Your task to perform on an android device: change the upload size in google photos Image 0: 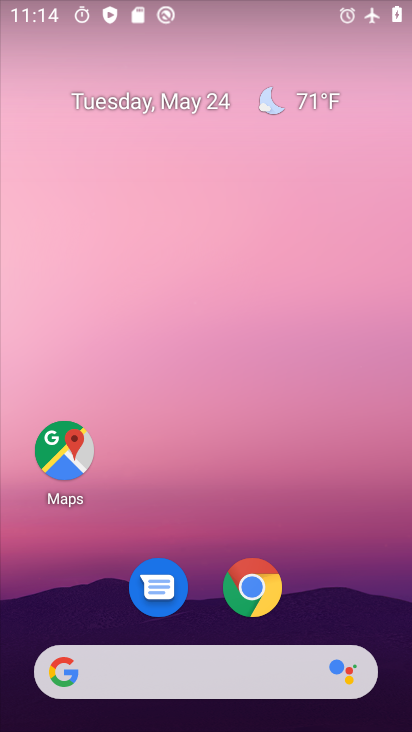
Step 0: drag from (251, 435) to (190, 200)
Your task to perform on an android device: change the upload size in google photos Image 1: 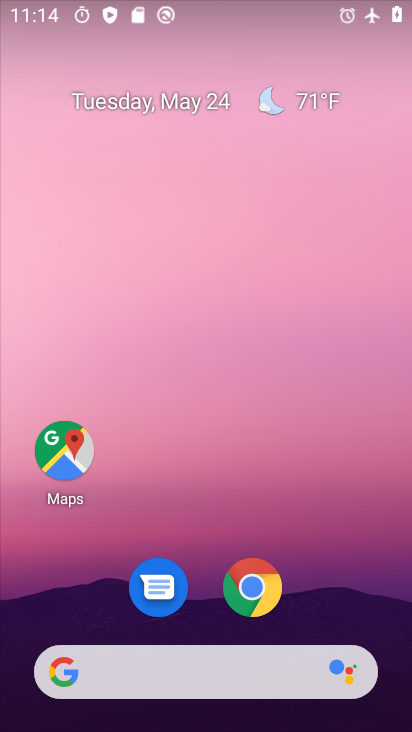
Step 1: drag from (266, 452) to (137, 205)
Your task to perform on an android device: change the upload size in google photos Image 2: 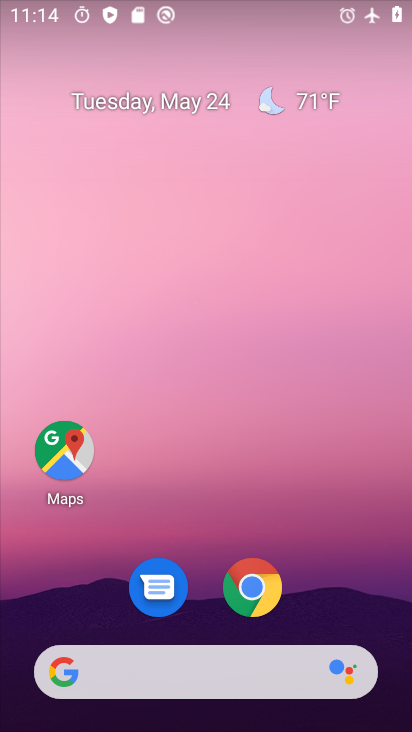
Step 2: drag from (326, 519) to (181, 16)
Your task to perform on an android device: change the upload size in google photos Image 3: 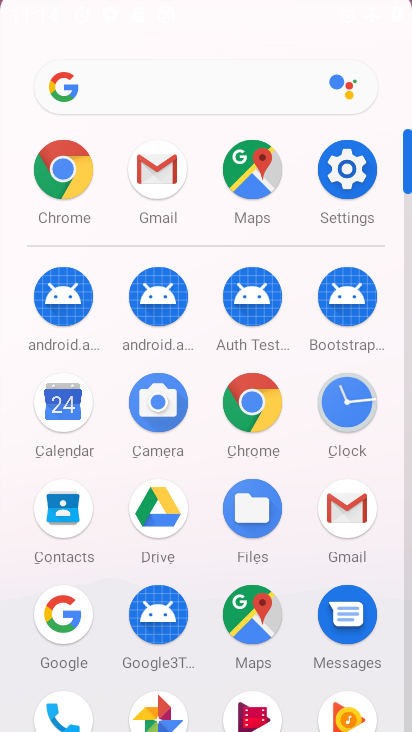
Step 3: drag from (391, 554) to (263, 72)
Your task to perform on an android device: change the upload size in google photos Image 4: 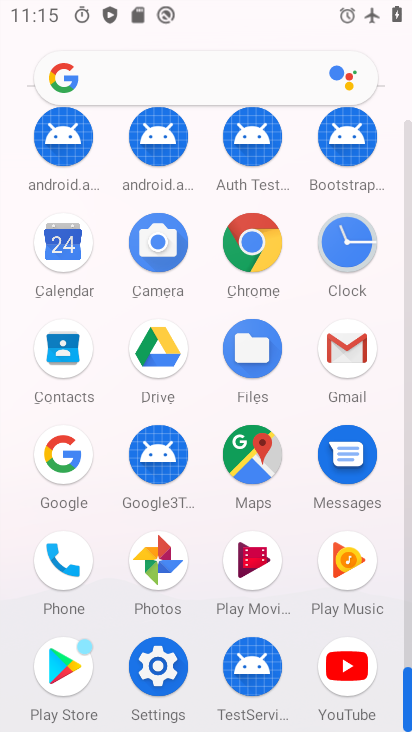
Step 4: click (147, 551)
Your task to perform on an android device: change the upload size in google photos Image 5: 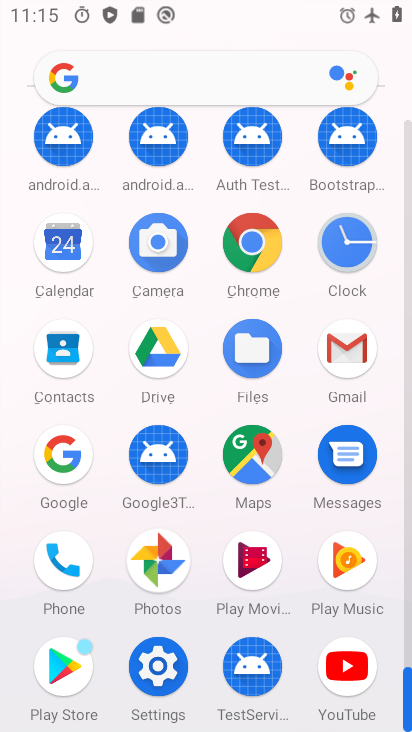
Step 5: click (153, 552)
Your task to perform on an android device: change the upload size in google photos Image 6: 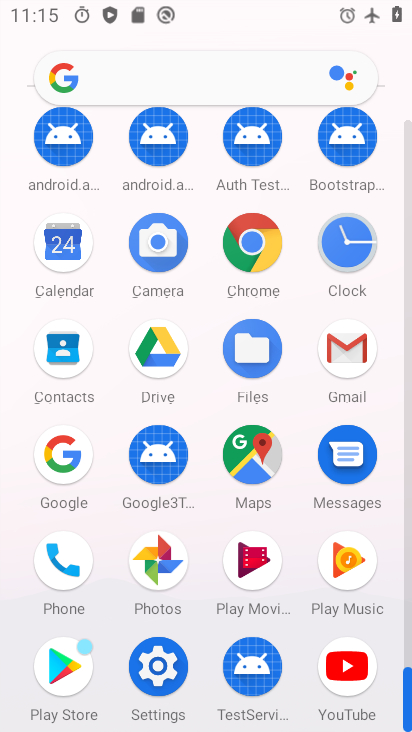
Step 6: click (153, 550)
Your task to perform on an android device: change the upload size in google photos Image 7: 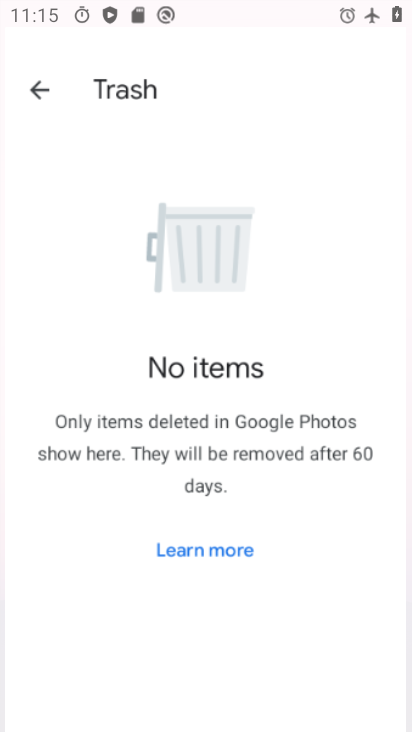
Step 7: click (154, 551)
Your task to perform on an android device: change the upload size in google photos Image 8: 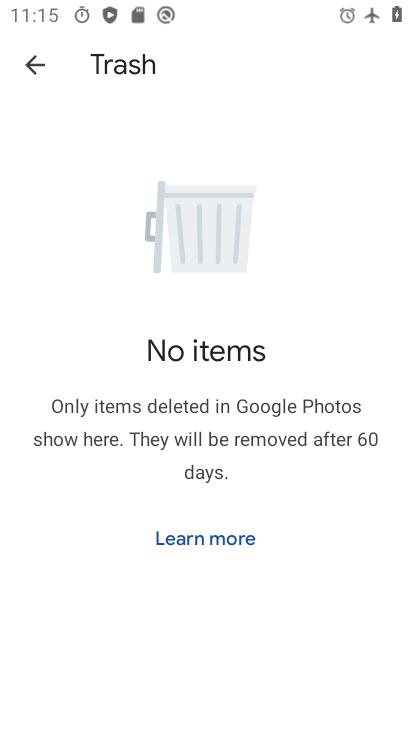
Step 8: click (154, 553)
Your task to perform on an android device: change the upload size in google photos Image 9: 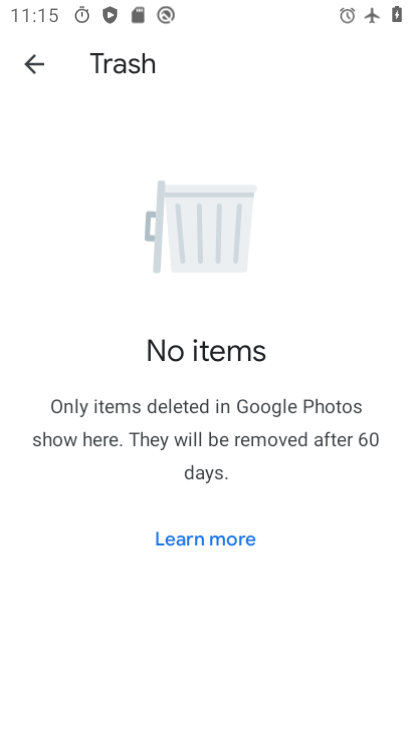
Step 9: click (28, 69)
Your task to perform on an android device: change the upload size in google photos Image 10: 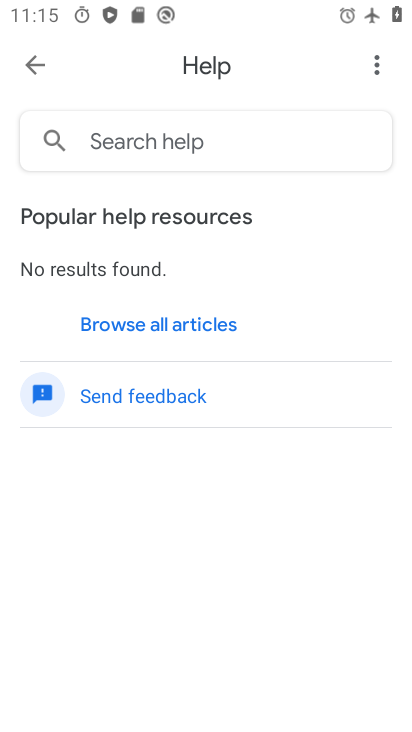
Step 10: click (35, 59)
Your task to perform on an android device: change the upload size in google photos Image 11: 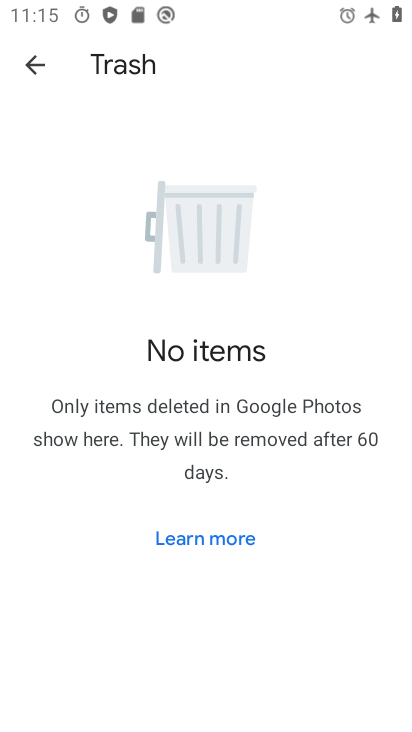
Step 11: click (37, 59)
Your task to perform on an android device: change the upload size in google photos Image 12: 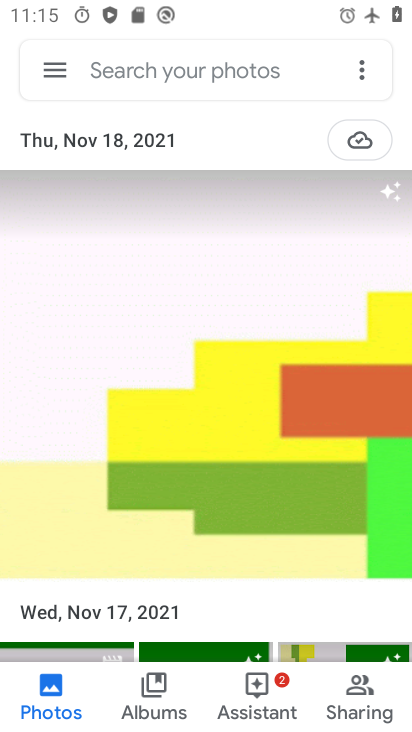
Step 12: click (68, 67)
Your task to perform on an android device: change the upload size in google photos Image 13: 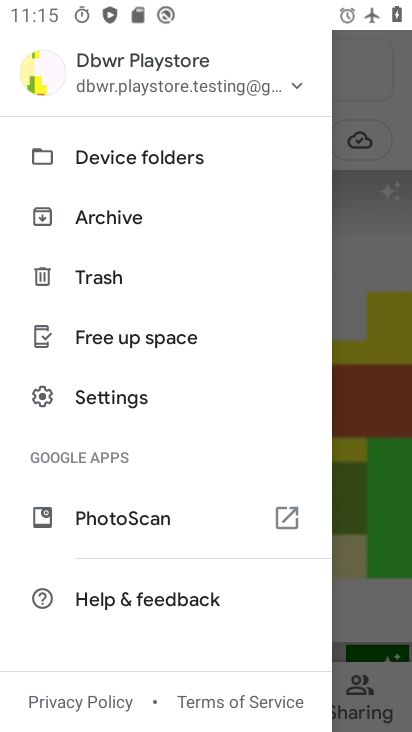
Step 13: click (112, 402)
Your task to perform on an android device: change the upload size in google photos Image 14: 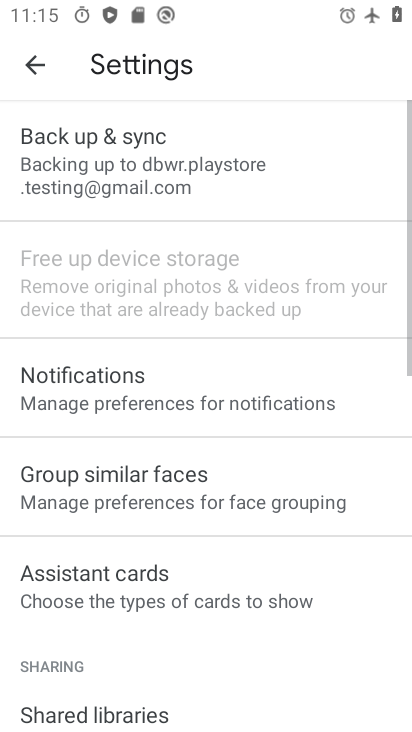
Step 14: click (99, 159)
Your task to perform on an android device: change the upload size in google photos Image 15: 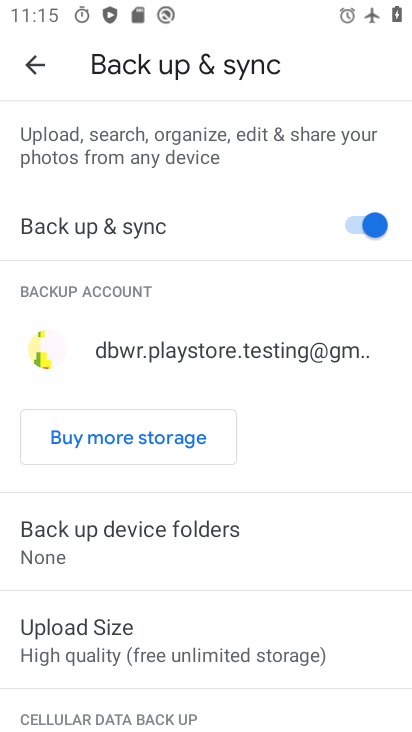
Step 15: click (97, 144)
Your task to perform on an android device: change the upload size in google photos Image 16: 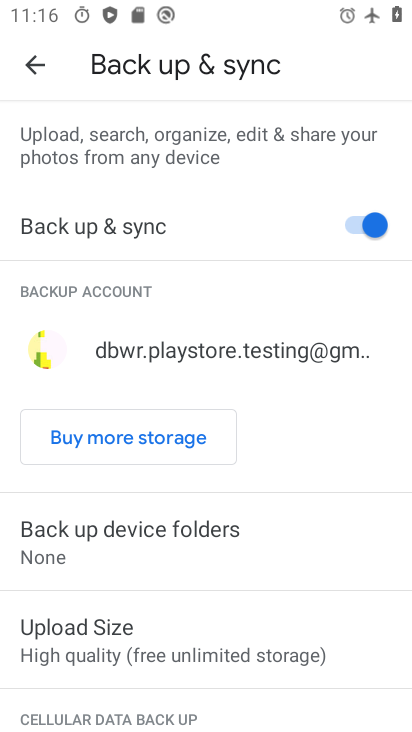
Step 16: click (183, 169)
Your task to perform on an android device: change the upload size in google photos Image 17: 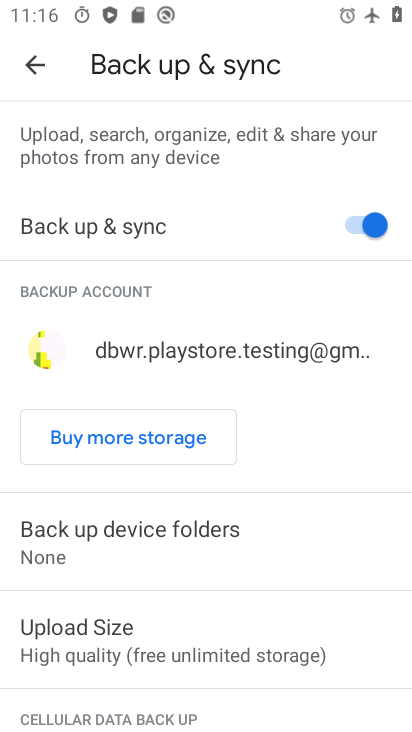
Step 17: drag from (215, 418) to (222, 158)
Your task to perform on an android device: change the upload size in google photos Image 18: 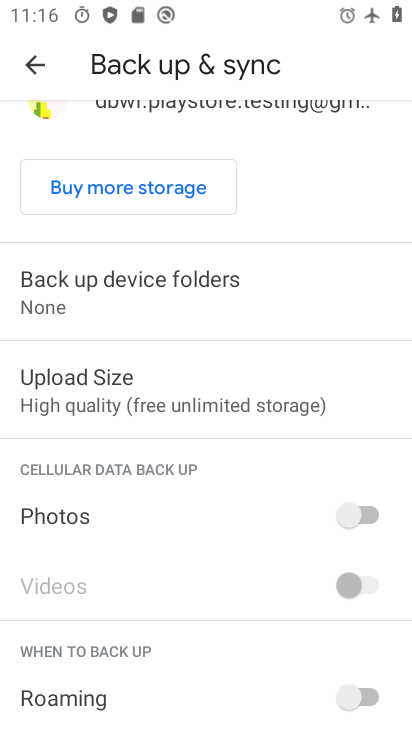
Step 18: drag from (132, 223) to (162, 486)
Your task to perform on an android device: change the upload size in google photos Image 19: 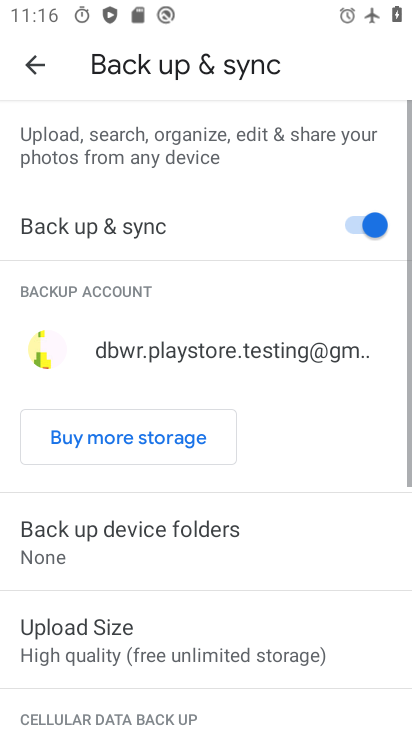
Step 19: drag from (134, 270) to (185, 571)
Your task to perform on an android device: change the upload size in google photos Image 20: 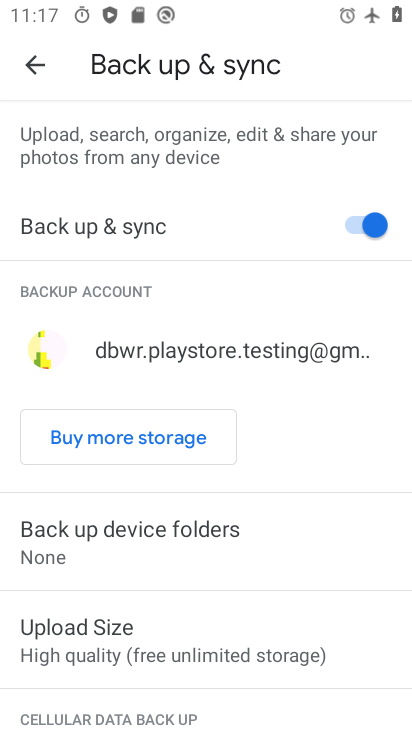
Step 20: click (91, 157)
Your task to perform on an android device: change the upload size in google photos Image 21: 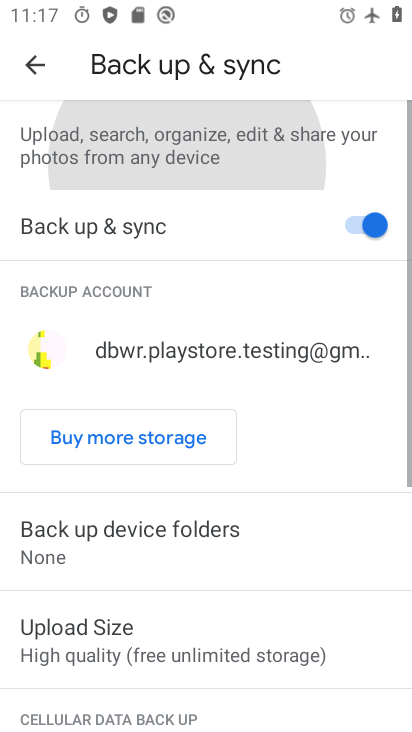
Step 21: click (91, 155)
Your task to perform on an android device: change the upload size in google photos Image 22: 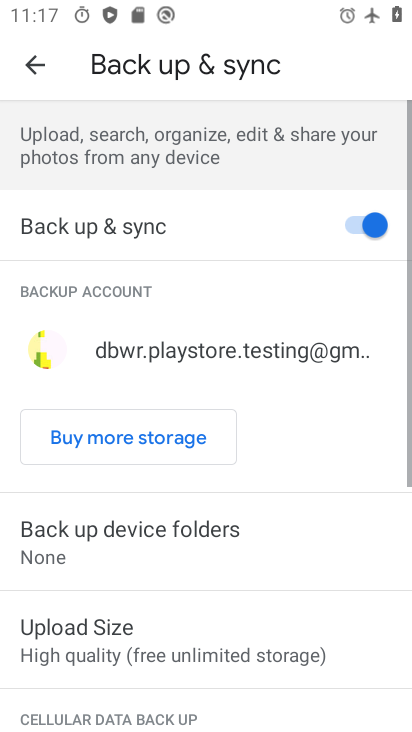
Step 22: click (92, 153)
Your task to perform on an android device: change the upload size in google photos Image 23: 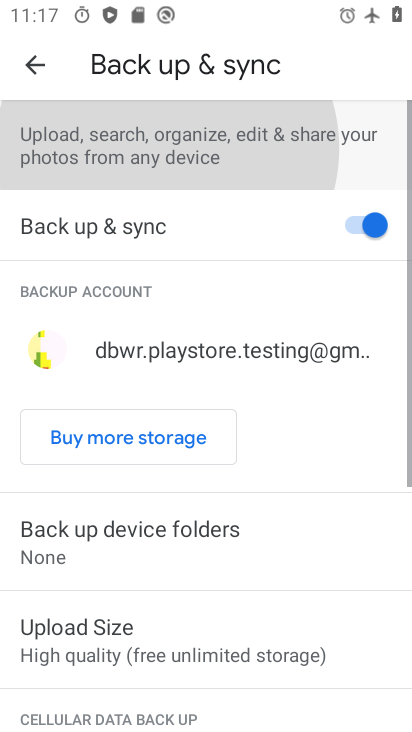
Step 23: click (93, 152)
Your task to perform on an android device: change the upload size in google photos Image 24: 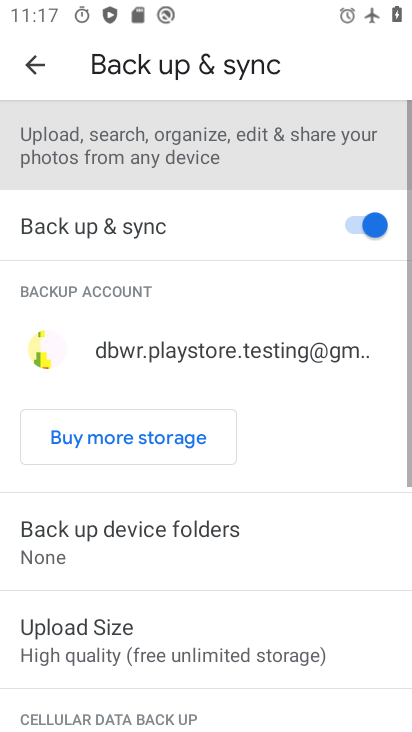
Step 24: click (95, 150)
Your task to perform on an android device: change the upload size in google photos Image 25: 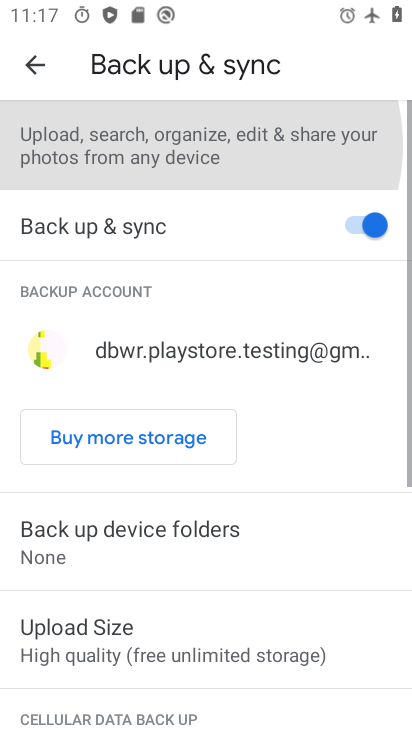
Step 25: click (97, 151)
Your task to perform on an android device: change the upload size in google photos Image 26: 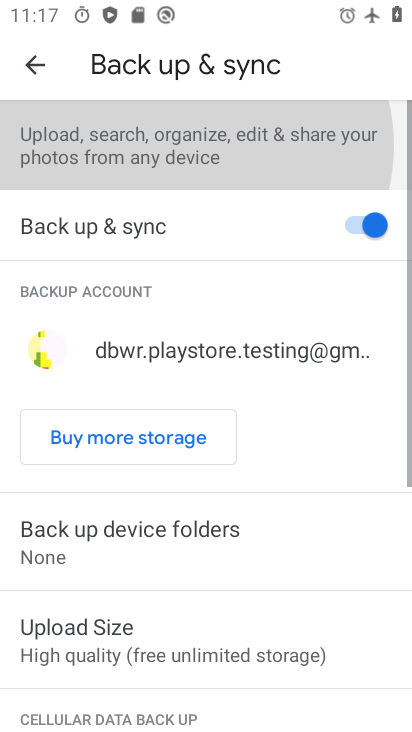
Step 26: click (97, 151)
Your task to perform on an android device: change the upload size in google photos Image 27: 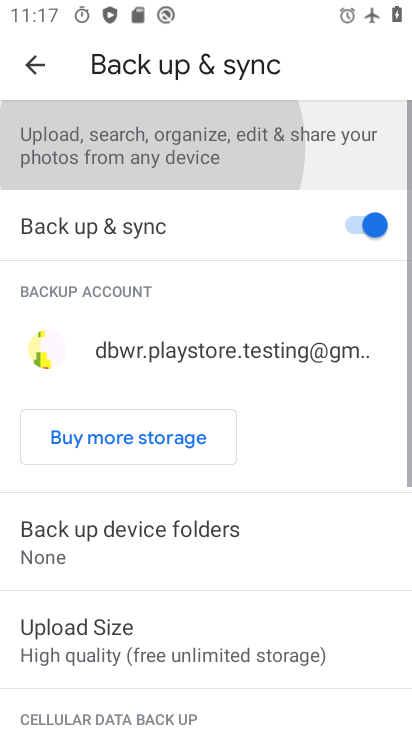
Step 27: click (98, 152)
Your task to perform on an android device: change the upload size in google photos Image 28: 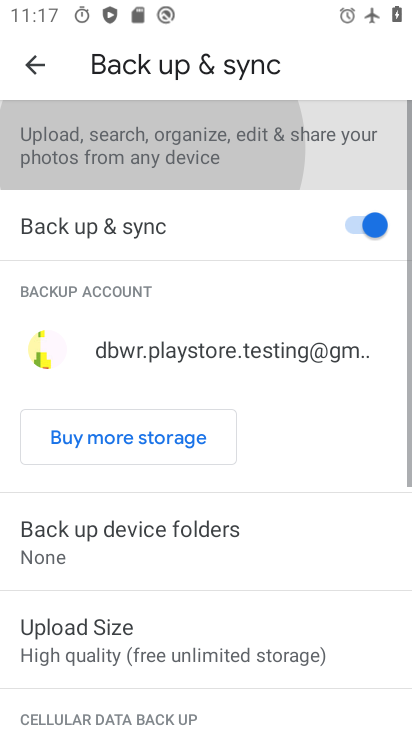
Step 28: click (98, 152)
Your task to perform on an android device: change the upload size in google photos Image 29: 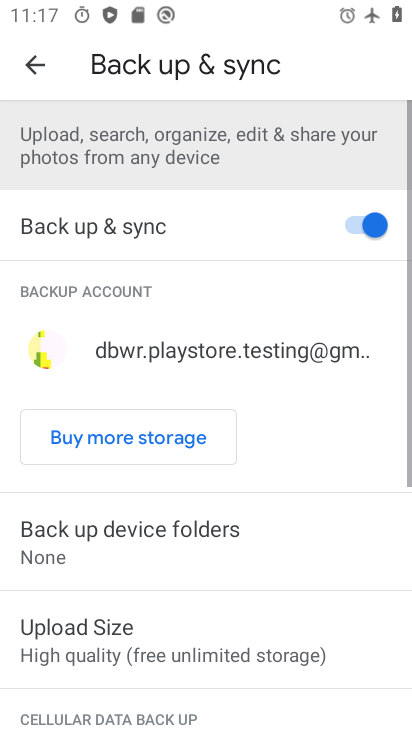
Step 29: click (108, 155)
Your task to perform on an android device: change the upload size in google photos Image 30: 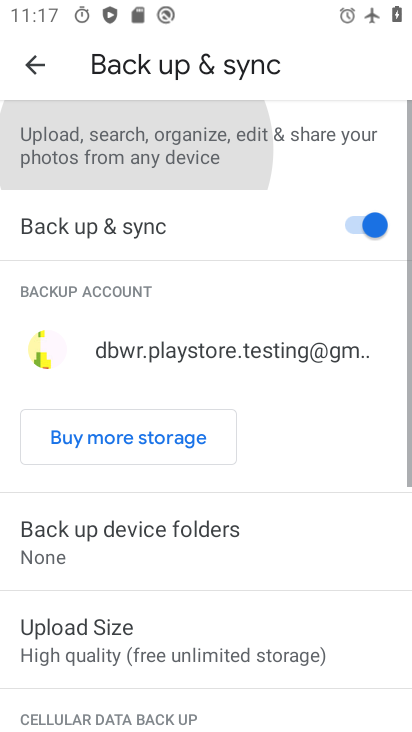
Step 30: click (115, 158)
Your task to perform on an android device: change the upload size in google photos Image 31: 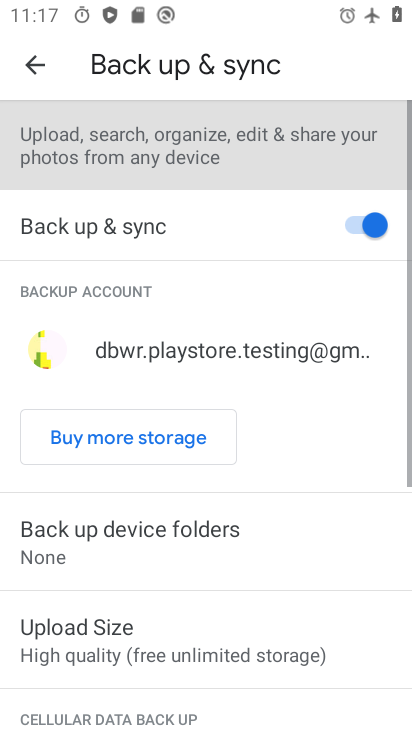
Step 31: click (120, 158)
Your task to perform on an android device: change the upload size in google photos Image 32: 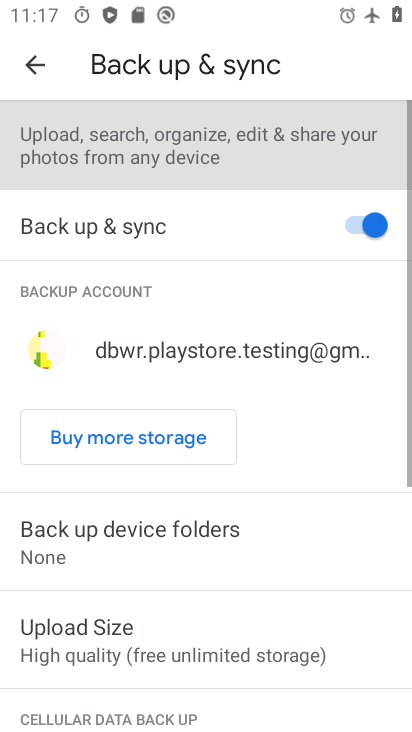
Step 32: click (178, 157)
Your task to perform on an android device: change the upload size in google photos Image 33: 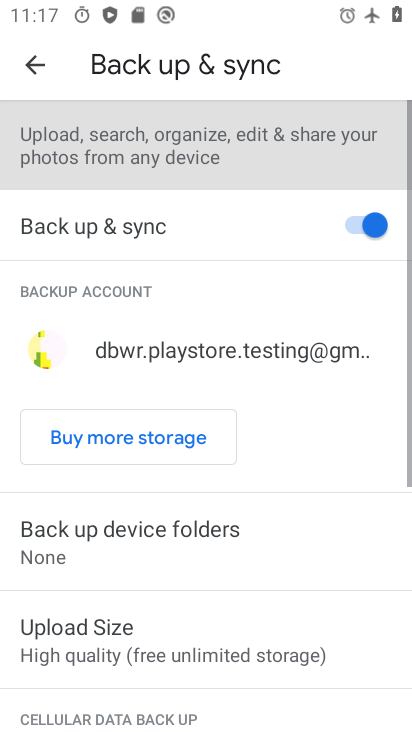
Step 33: click (159, 172)
Your task to perform on an android device: change the upload size in google photos Image 34: 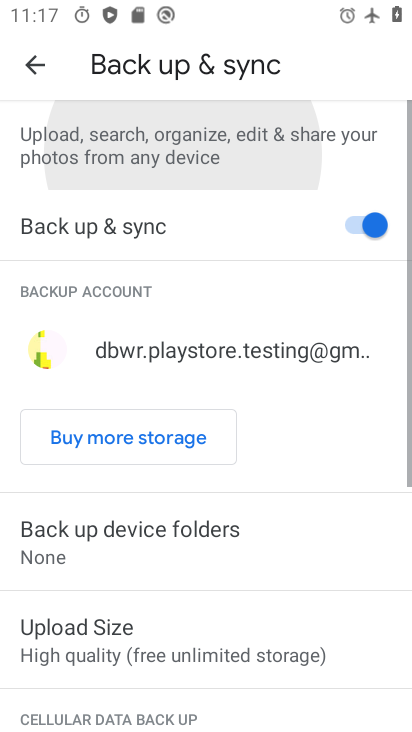
Step 34: click (108, 108)
Your task to perform on an android device: change the upload size in google photos Image 35: 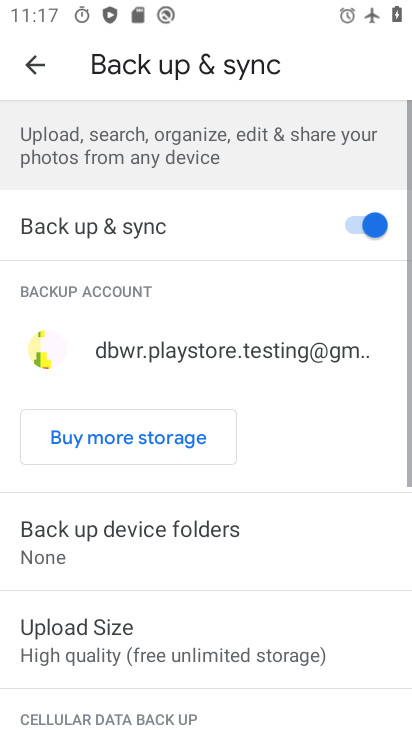
Step 35: click (131, 145)
Your task to perform on an android device: change the upload size in google photos Image 36: 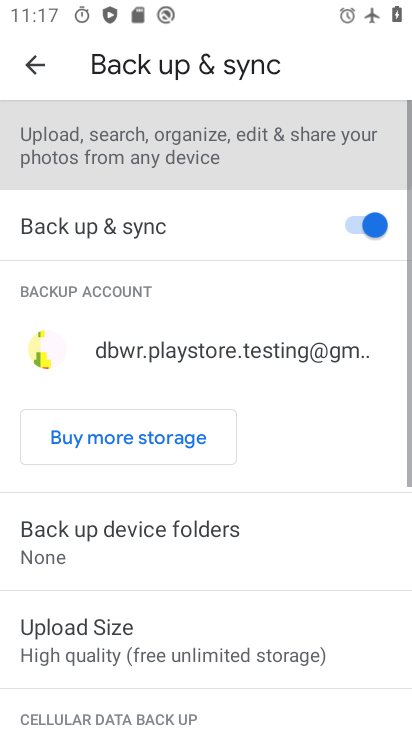
Step 36: click (134, 165)
Your task to perform on an android device: change the upload size in google photos Image 37: 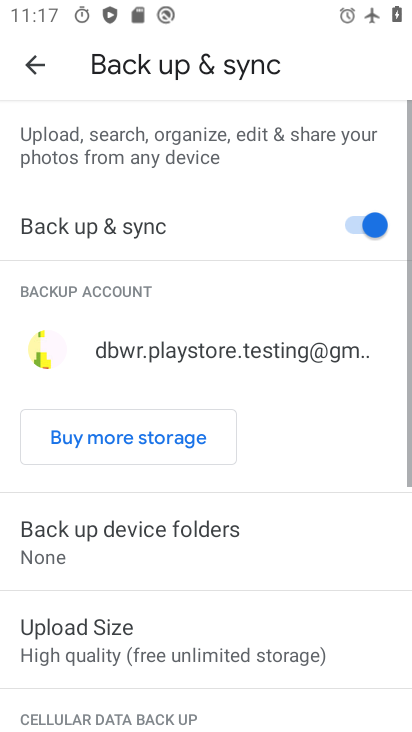
Step 37: click (135, 167)
Your task to perform on an android device: change the upload size in google photos Image 38: 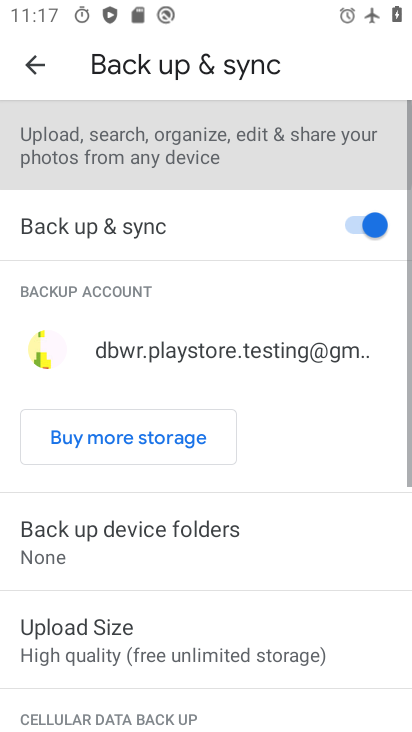
Step 38: click (126, 120)
Your task to perform on an android device: change the upload size in google photos Image 39: 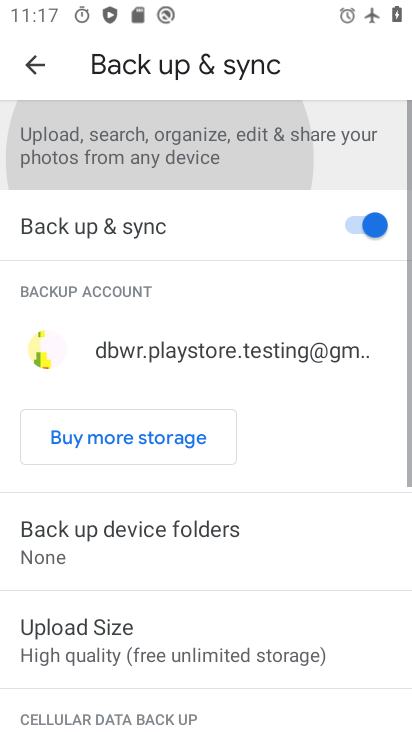
Step 39: click (128, 122)
Your task to perform on an android device: change the upload size in google photos Image 40: 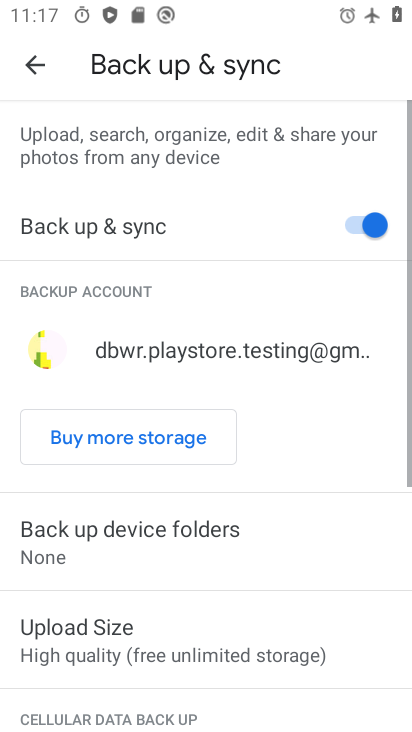
Step 40: click (143, 155)
Your task to perform on an android device: change the upload size in google photos Image 41: 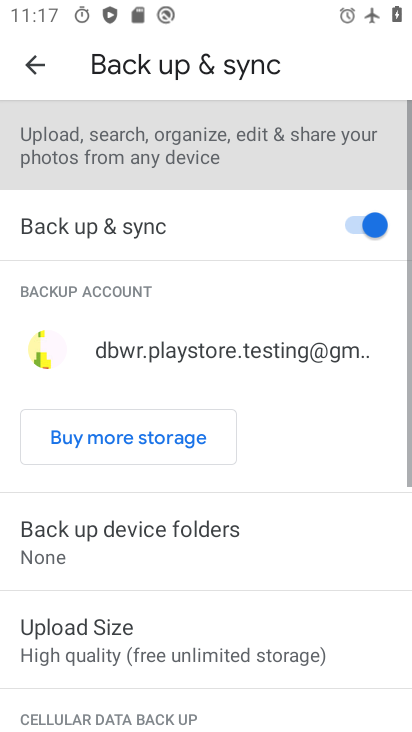
Step 41: click (143, 156)
Your task to perform on an android device: change the upload size in google photos Image 42: 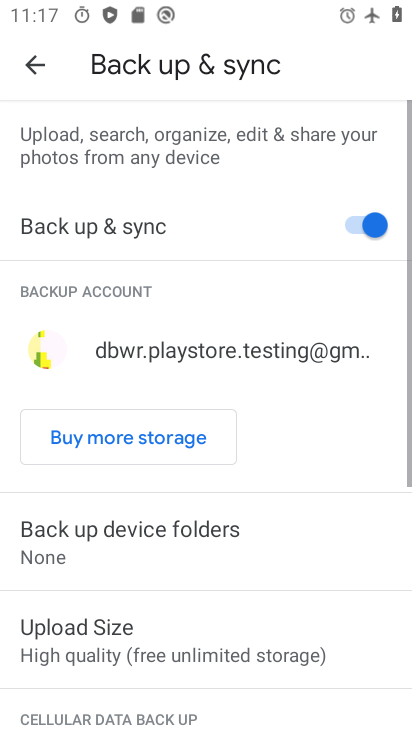
Step 42: click (144, 157)
Your task to perform on an android device: change the upload size in google photos Image 43: 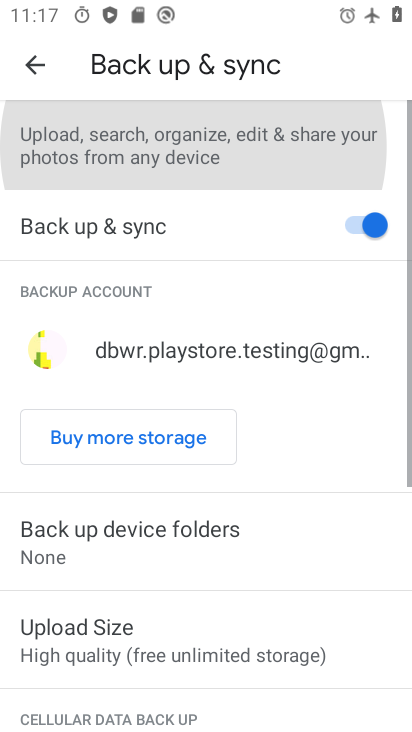
Step 43: click (144, 157)
Your task to perform on an android device: change the upload size in google photos Image 44: 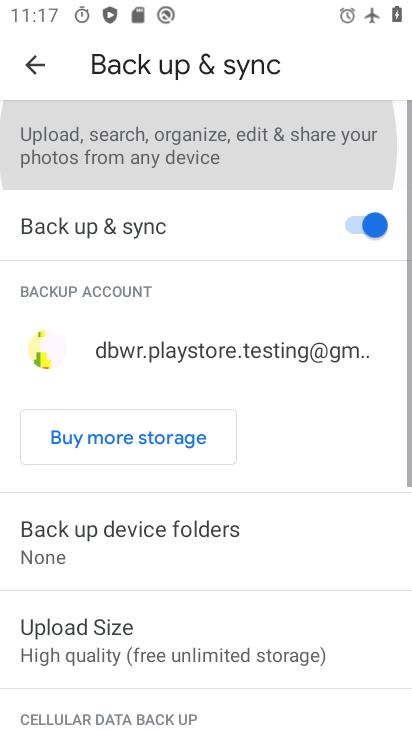
Step 44: click (146, 158)
Your task to perform on an android device: change the upload size in google photos Image 45: 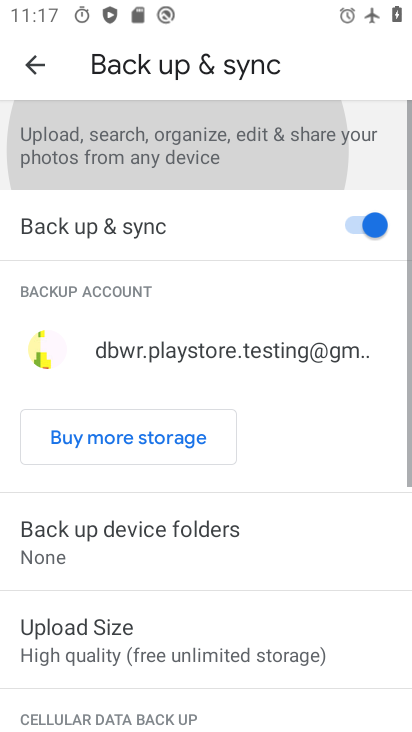
Step 45: click (150, 161)
Your task to perform on an android device: change the upload size in google photos Image 46: 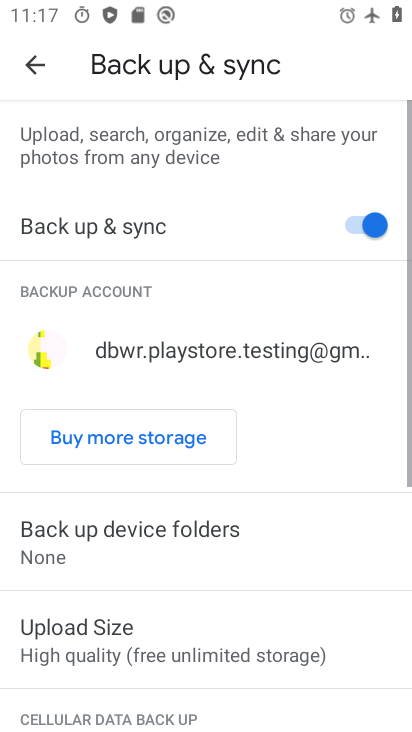
Step 46: click (150, 161)
Your task to perform on an android device: change the upload size in google photos Image 47: 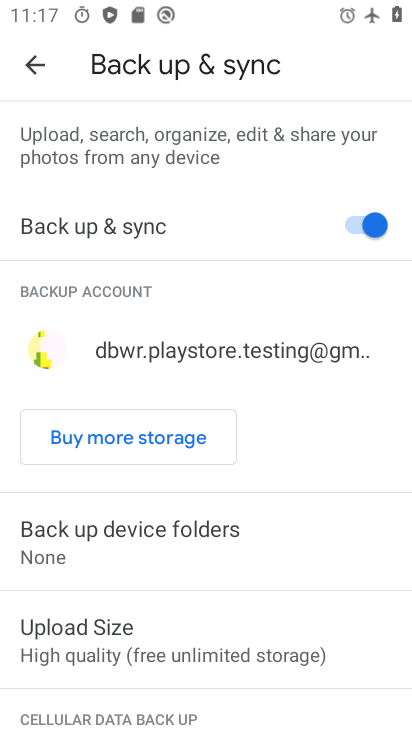
Step 47: click (60, 141)
Your task to perform on an android device: change the upload size in google photos Image 48: 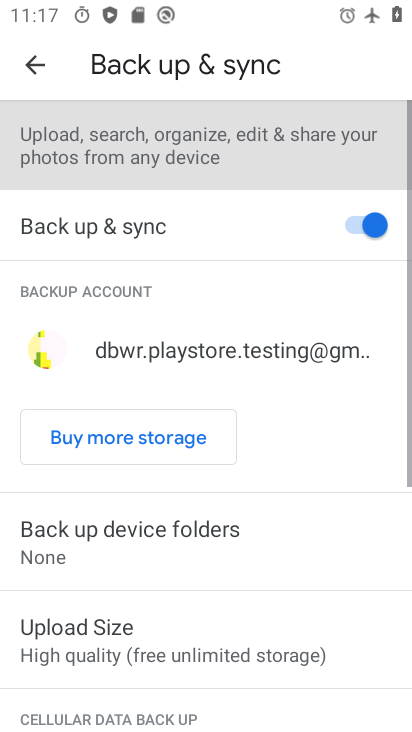
Step 48: click (73, 152)
Your task to perform on an android device: change the upload size in google photos Image 49: 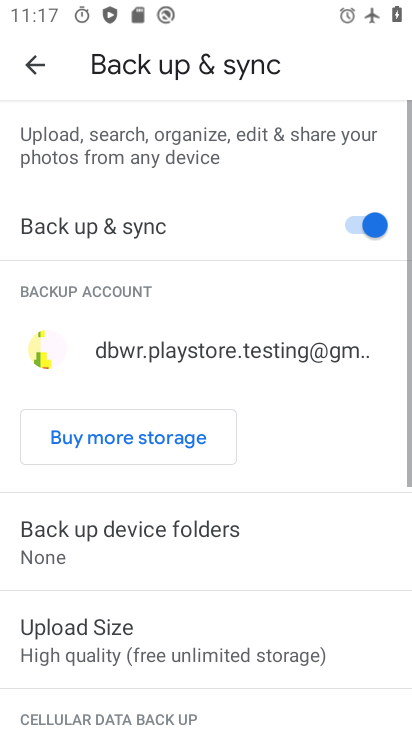
Step 49: click (69, 135)
Your task to perform on an android device: change the upload size in google photos Image 50: 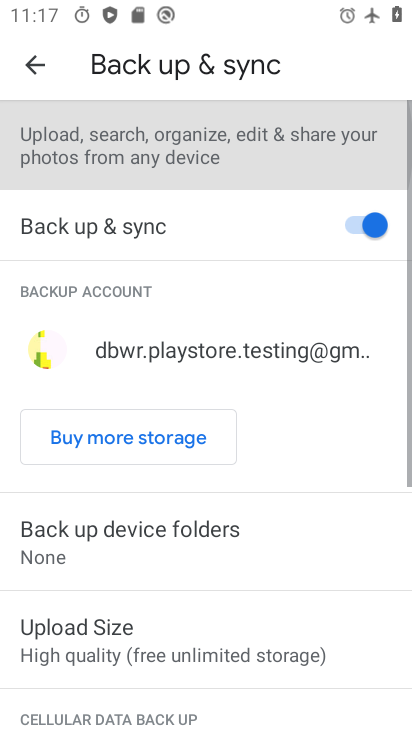
Step 50: click (83, 149)
Your task to perform on an android device: change the upload size in google photos Image 51: 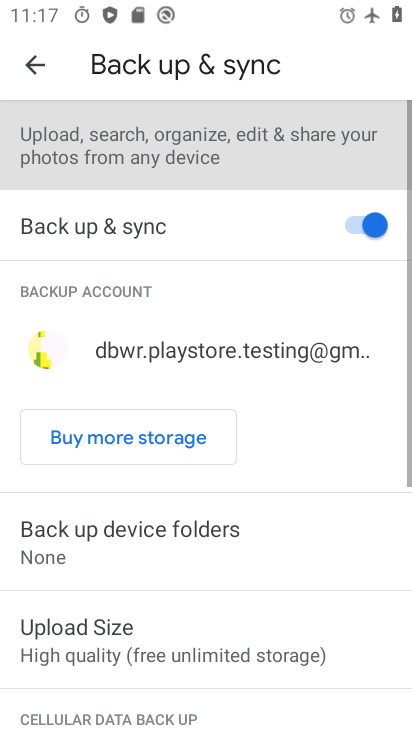
Step 51: click (101, 154)
Your task to perform on an android device: change the upload size in google photos Image 52: 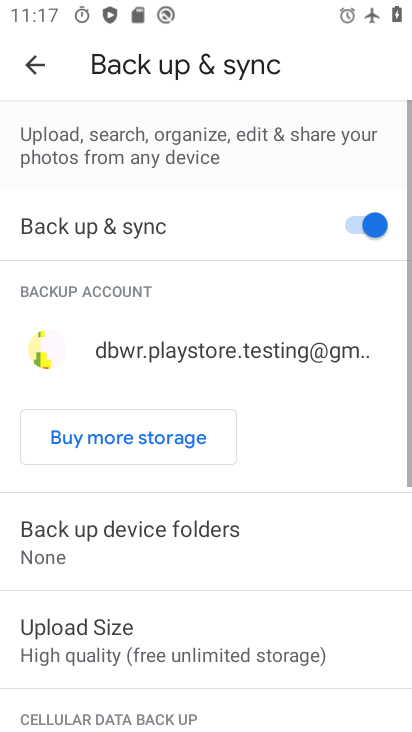
Step 52: click (108, 152)
Your task to perform on an android device: change the upload size in google photos Image 53: 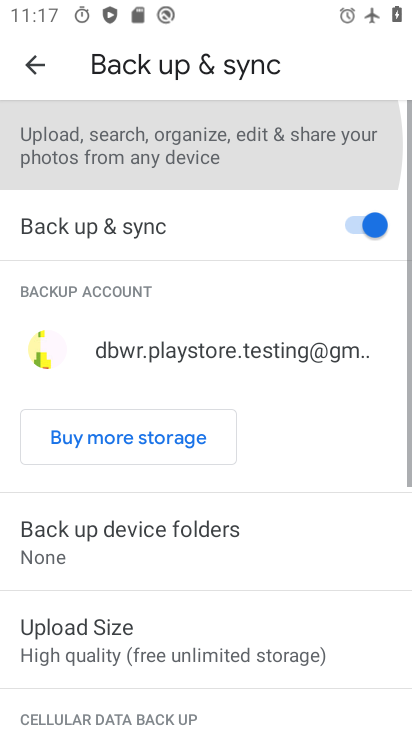
Step 53: click (109, 152)
Your task to perform on an android device: change the upload size in google photos Image 54: 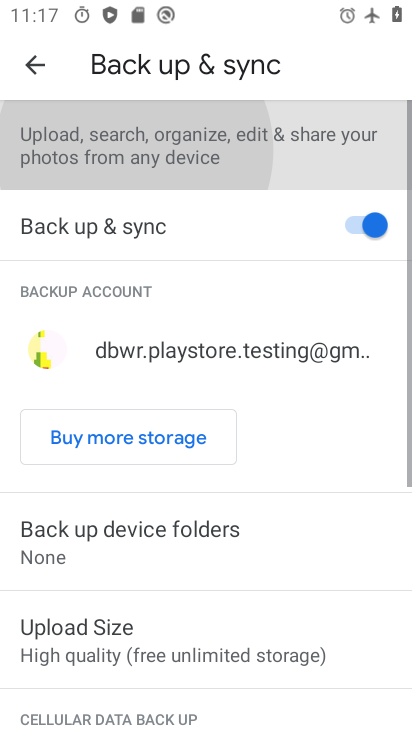
Step 54: click (113, 150)
Your task to perform on an android device: change the upload size in google photos Image 55: 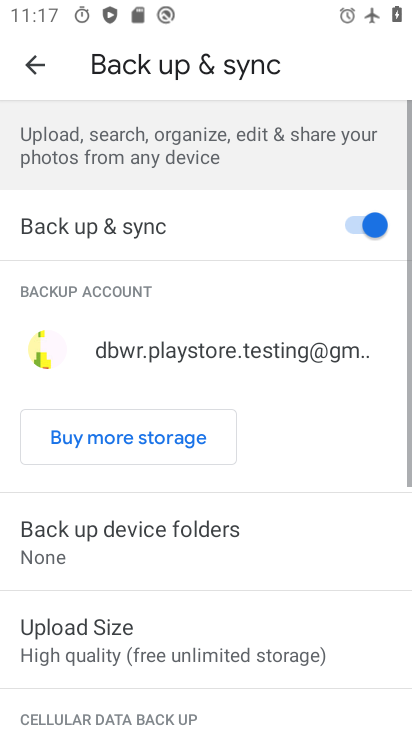
Step 55: click (118, 148)
Your task to perform on an android device: change the upload size in google photos Image 56: 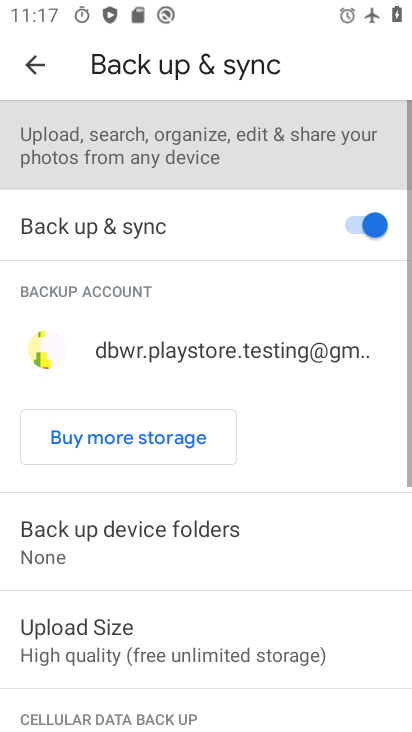
Step 56: click (122, 148)
Your task to perform on an android device: change the upload size in google photos Image 57: 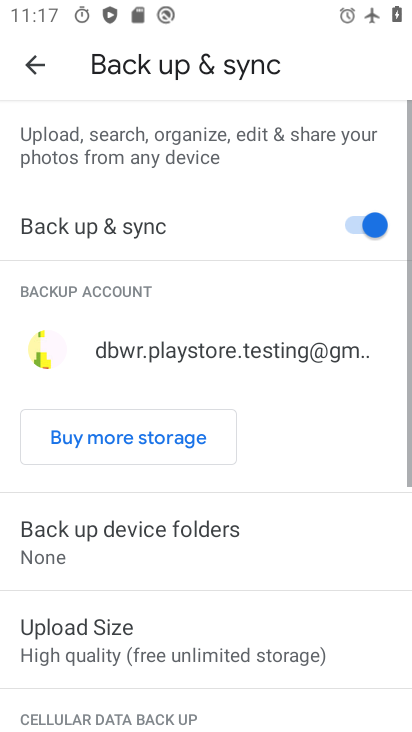
Step 57: click (123, 148)
Your task to perform on an android device: change the upload size in google photos Image 58: 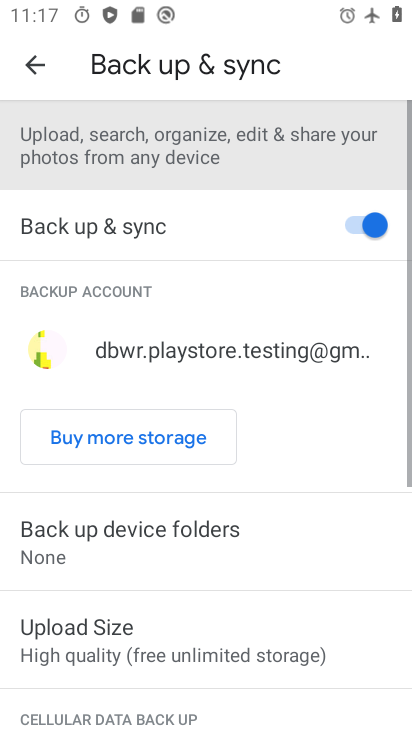
Step 58: click (125, 148)
Your task to perform on an android device: change the upload size in google photos Image 59: 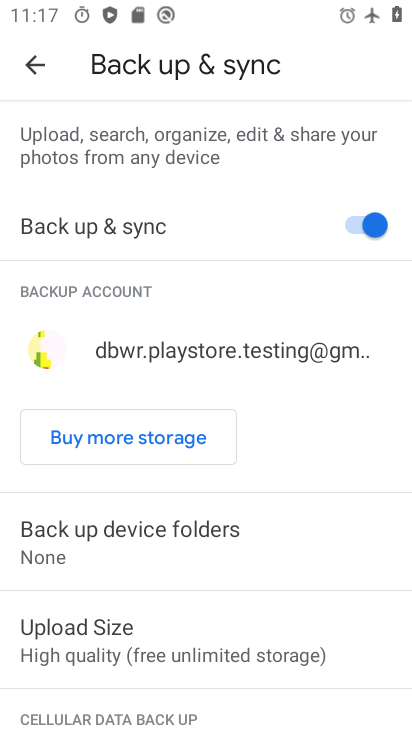
Step 59: click (133, 147)
Your task to perform on an android device: change the upload size in google photos Image 60: 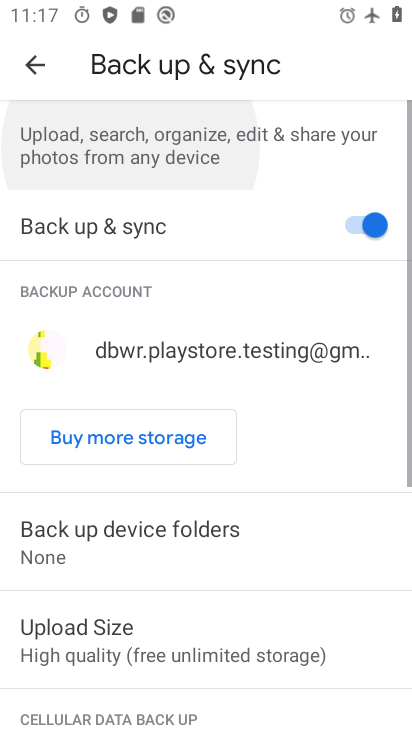
Step 60: click (132, 146)
Your task to perform on an android device: change the upload size in google photos Image 61: 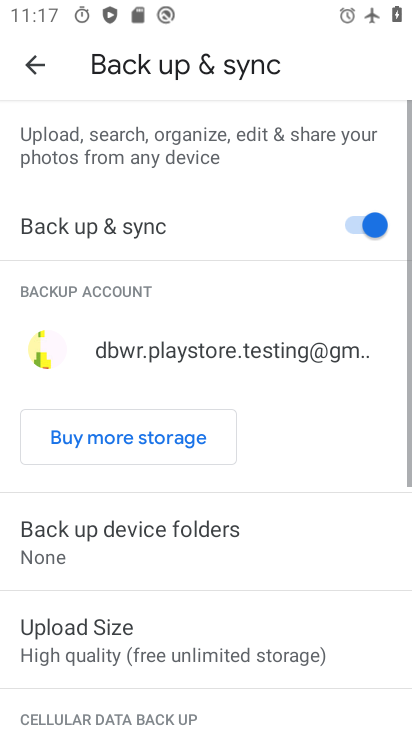
Step 61: click (134, 142)
Your task to perform on an android device: change the upload size in google photos Image 62: 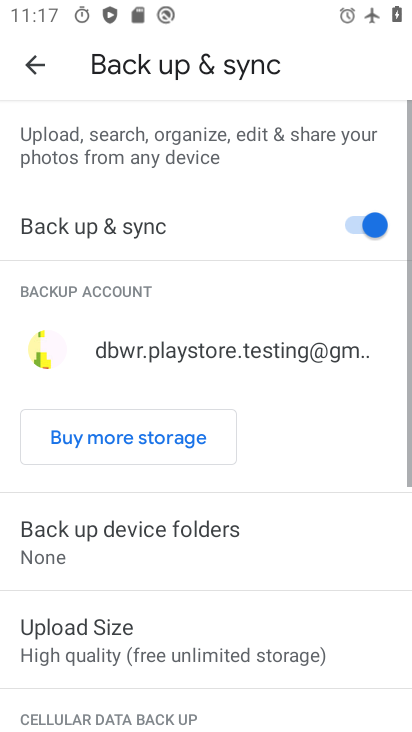
Step 62: click (137, 140)
Your task to perform on an android device: change the upload size in google photos Image 63: 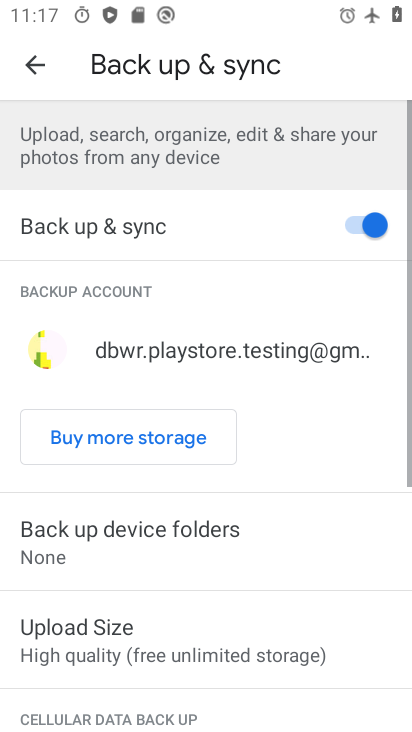
Step 63: click (143, 141)
Your task to perform on an android device: change the upload size in google photos Image 64: 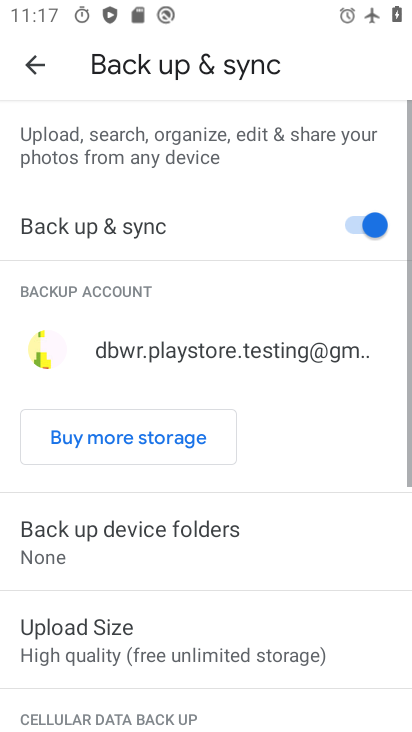
Step 64: click (143, 141)
Your task to perform on an android device: change the upload size in google photos Image 65: 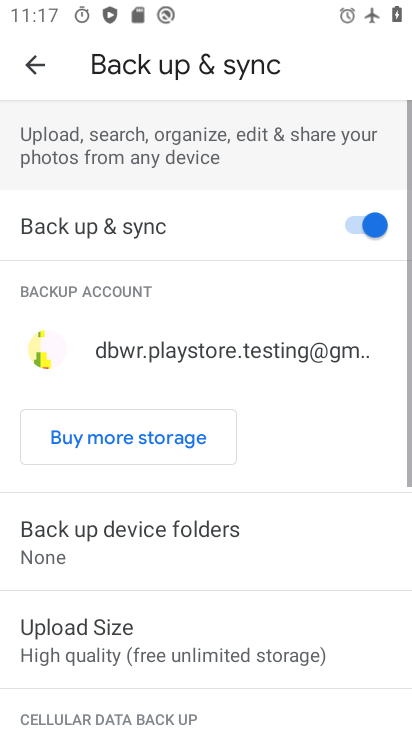
Step 65: click (144, 141)
Your task to perform on an android device: change the upload size in google photos Image 66: 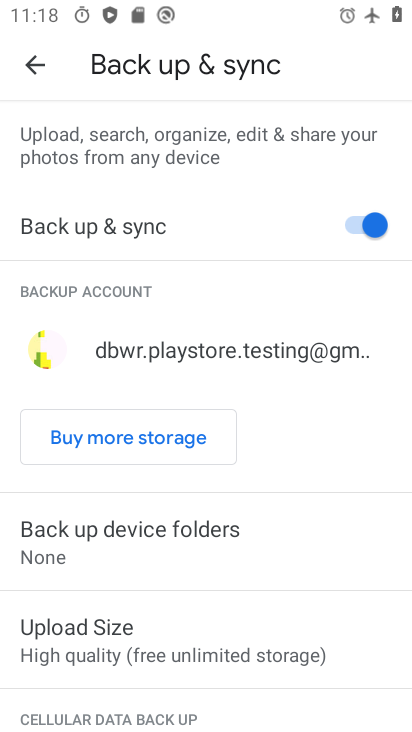
Step 66: click (96, 144)
Your task to perform on an android device: change the upload size in google photos Image 67: 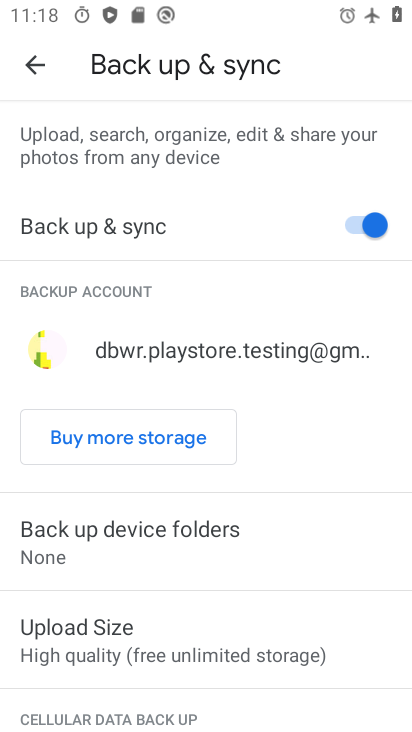
Step 67: click (117, 160)
Your task to perform on an android device: change the upload size in google photos Image 68: 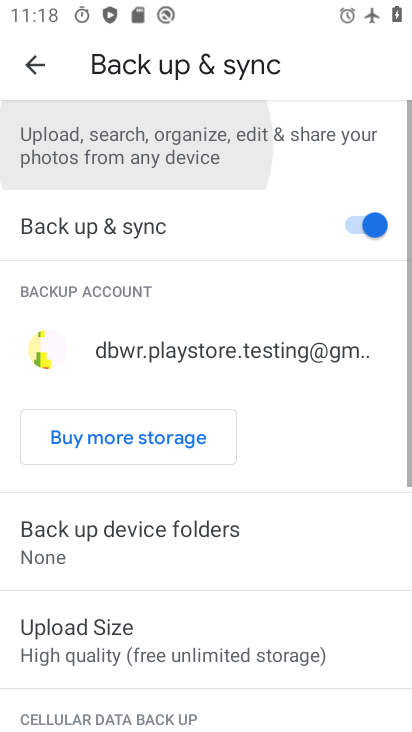
Step 68: click (118, 161)
Your task to perform on an android device: change the upload size in google photos Image 69: 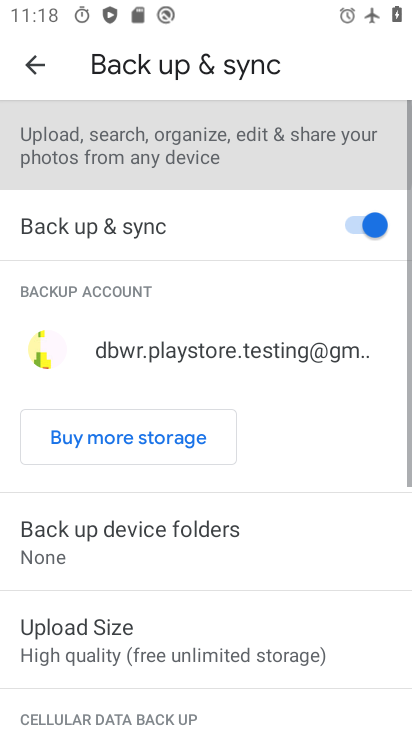
Step 69: click (118, 161)
Your task to perform on an android device: change the upload size in google photos Image 70: 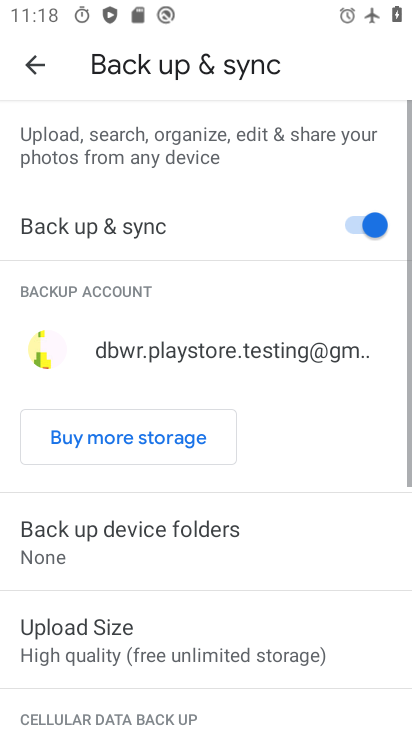
Step 70: click (119, 161)
Your task to perform on an android device: change the upload size in google photos Image 71: 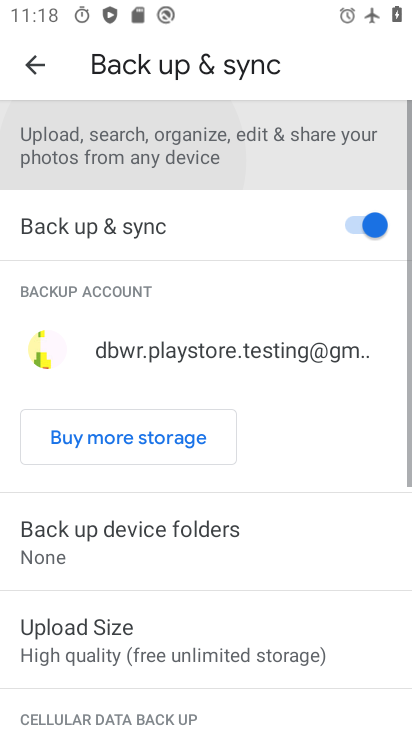
Step 71: click (120, 161)
Your task to perform on an android device: change the upload size in google photos Image 72: 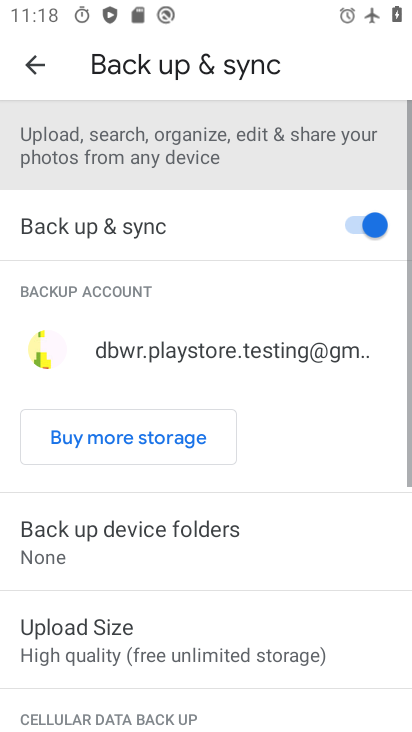
Step 72: click (124, 159)
Your task to perform on an android device: change the upload size in google photos Image 73: 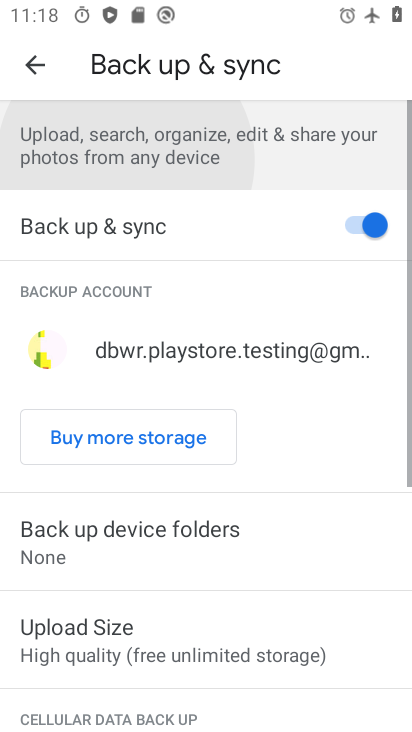
Step 73: click (124, 159)
Your task to perform on an android device: change the upload size in google photos Image 74: 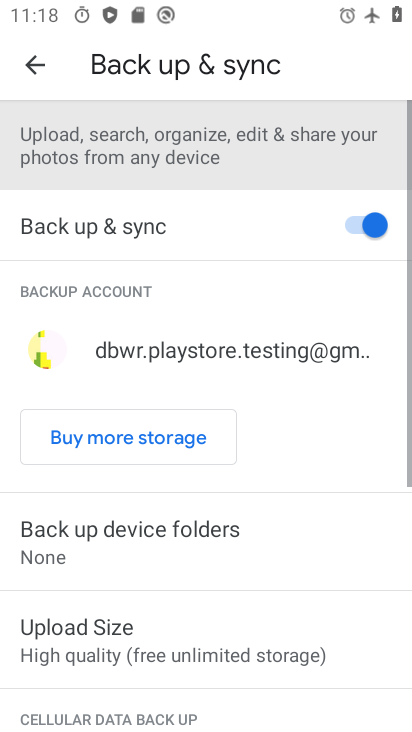
Step 74: click (125, 160)
Your task to perform on an android device: change the upload size in google photos Image 75: 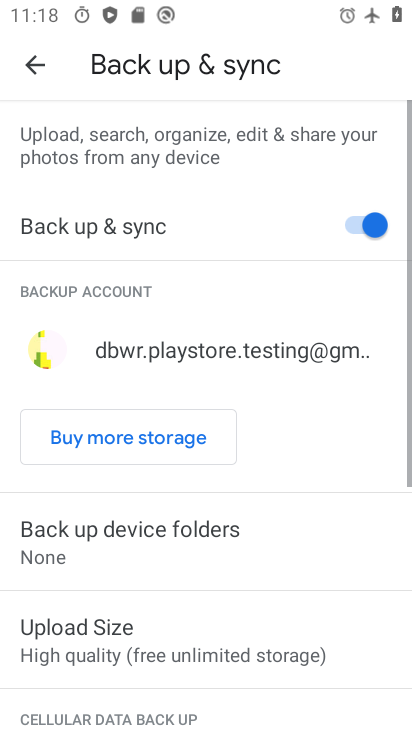
Step 75: task complete